Your task to perform on an android device: turn off sleep mode Image 0: 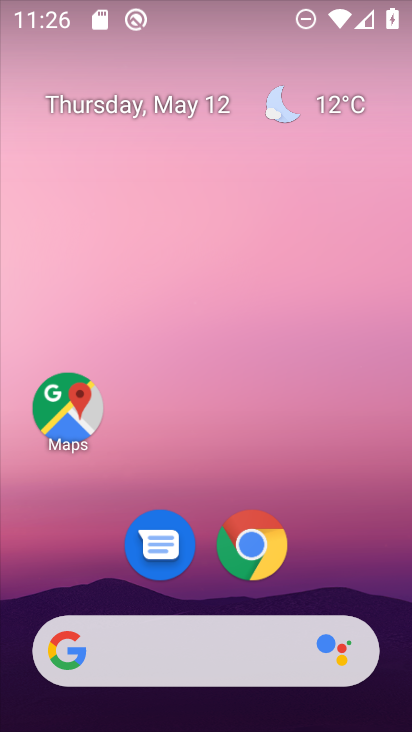
Step 0: drag from (209, 580) to (261, 193)
Your task to perform on an android device: turn off sleep mode Image 1: 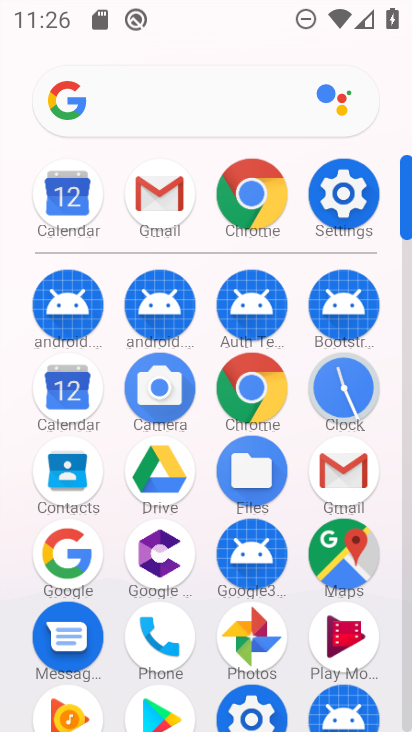
Step 1: click (335, 183)
Your task to perform on an android device: turn off sleep mode Image 2: 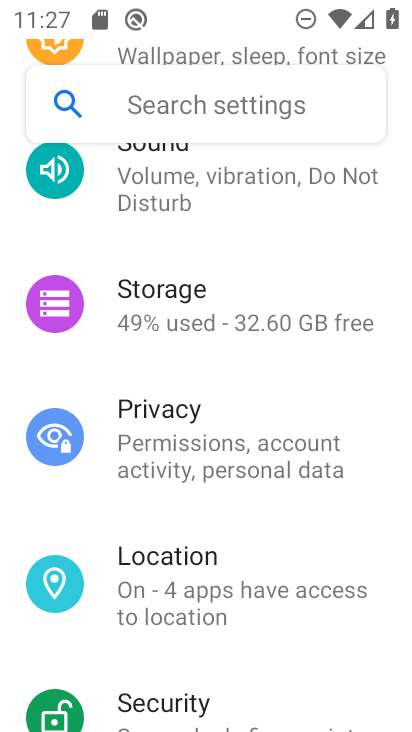
Step 2: drag from (177, 173) to (182, 586)
Your task to perform on an android device: turn off sleep mode Image 3: 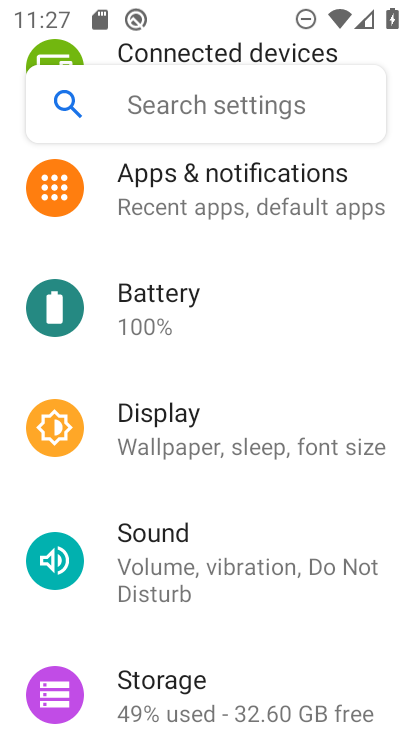
Step 3: click (150, 412)
Your task to perform on an android device: turn off sleep mode Image 4: 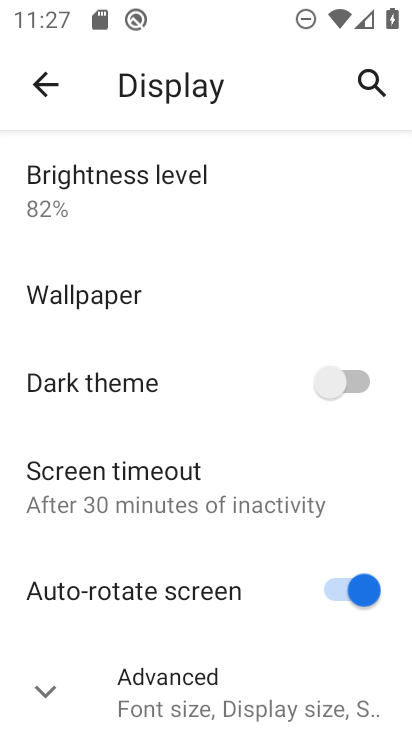
Step 4: task complete